Your task to perform on an android device: Open Chrome and go to settings Image 0: 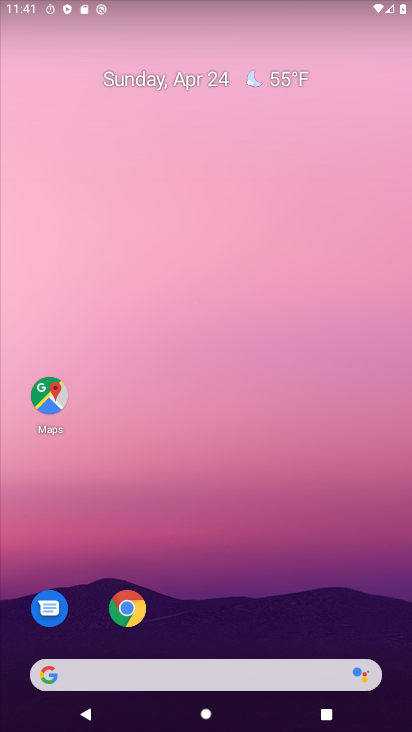
Step 0: click (131, 611)
Your task to perform on an android device: Open Chrome and go to settings Image 1: 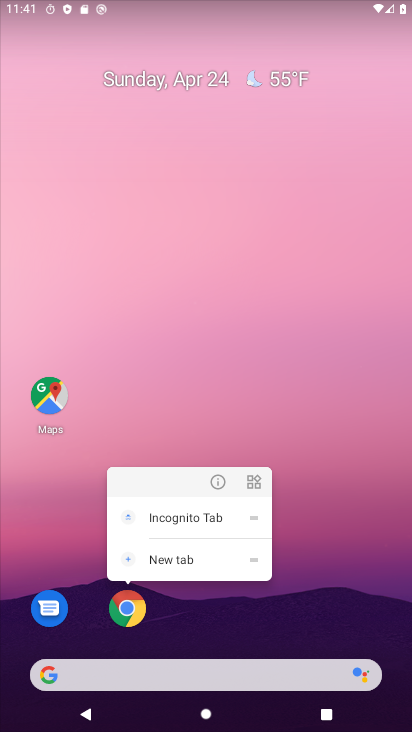
Step 1: click (127, 596)
Your task to perform on an android device: Open Chrome and go to settings Image 2: 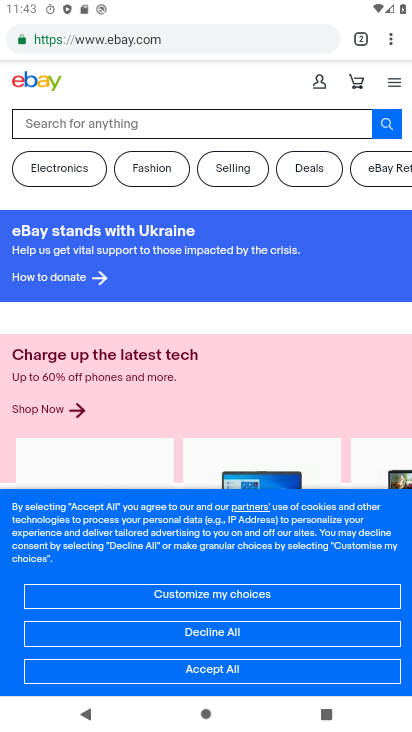
Step 2: click (392, 32)
Your task to perform on an android device: Open Chrome and go to settings Image 3: 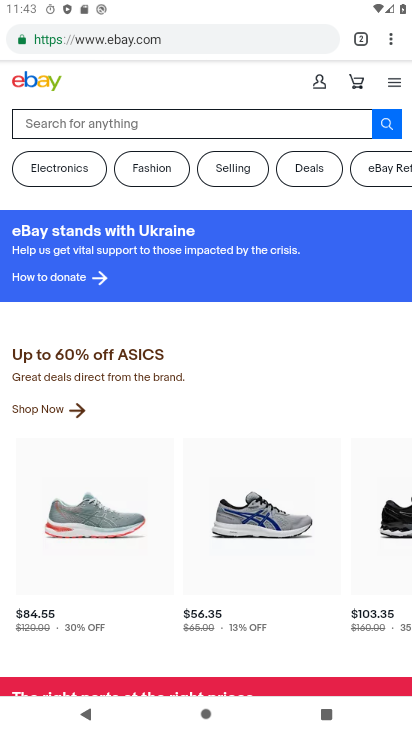
Step 3: task complete